Your task to perform on an android device: Check the news Image 0: 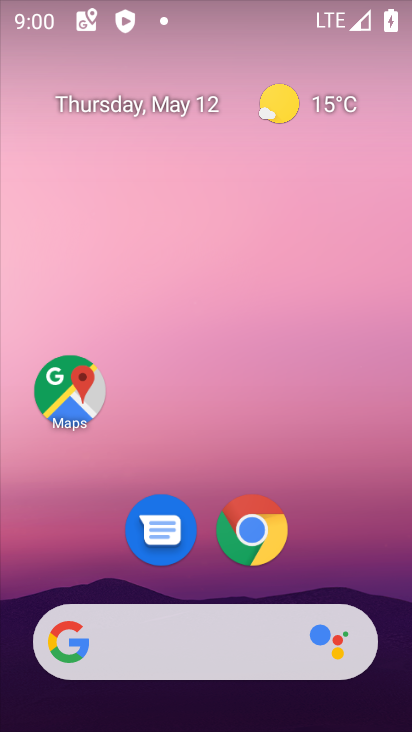
Step 0: click (170, 673)
Your task to perform on an android device: Check the news Image 1: 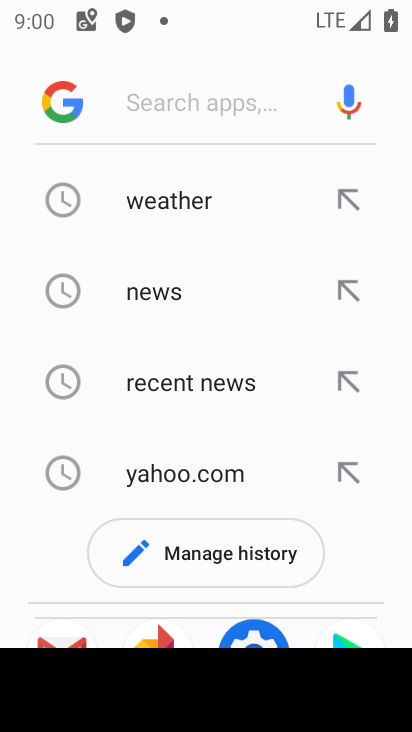
Step 1: click (145, 293)
Your task to perform on an android device: Check the news Image 2: 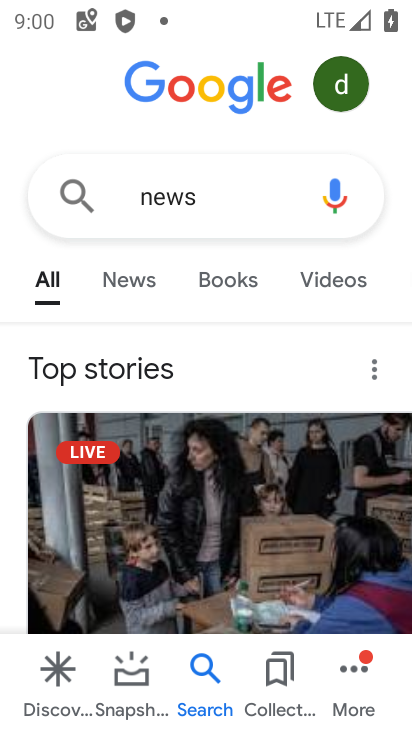
Step 2: task complete